Your task to perform on an android device: check google app version Image 0: 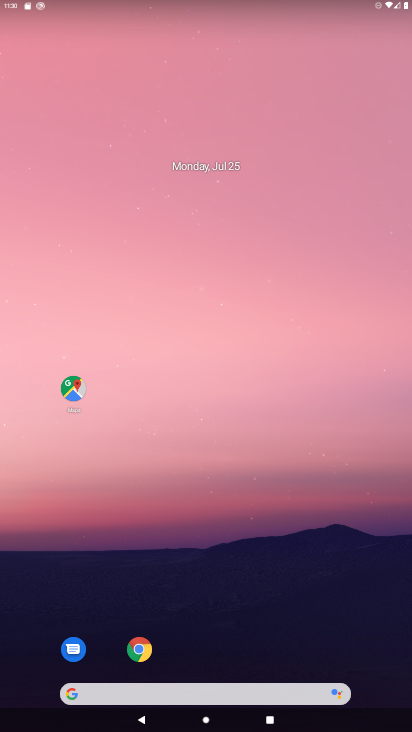
Step 0: click (139, 651)
Your task to perform on an android device: check google app version Image 1: 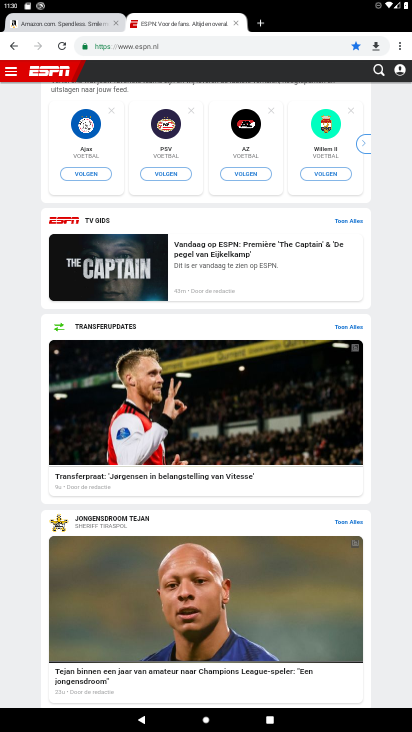
Step 1: click (397, 48)
Your task to perform on an android device: check google app version Image 2: 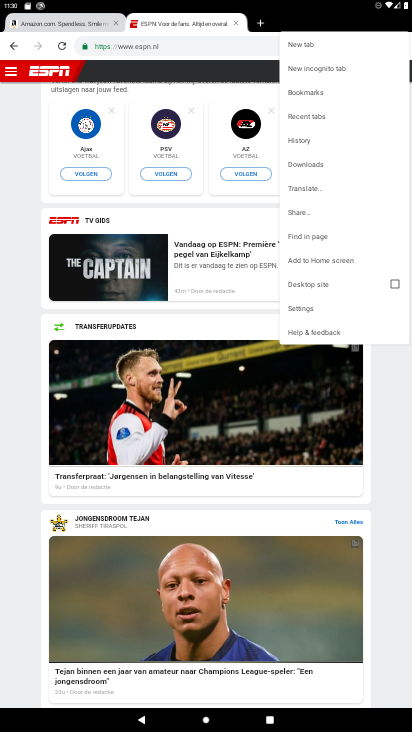
Step 2: click (296, 307)
Your task to perform on an android device: check google app version Image 3: 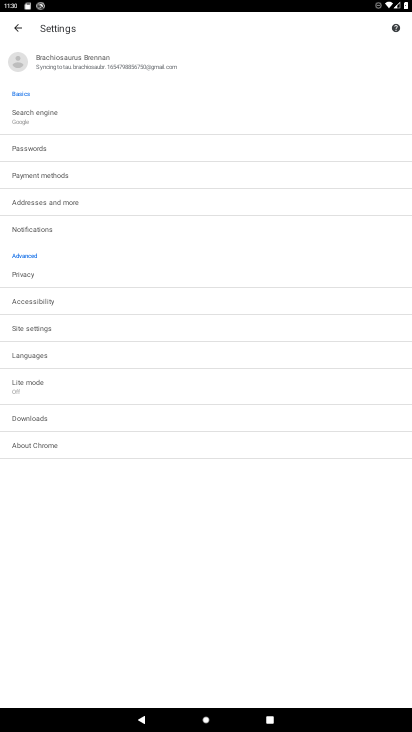
Step 3: click (30, 445)
Your task to perform on an android device: check google app version Image 4: 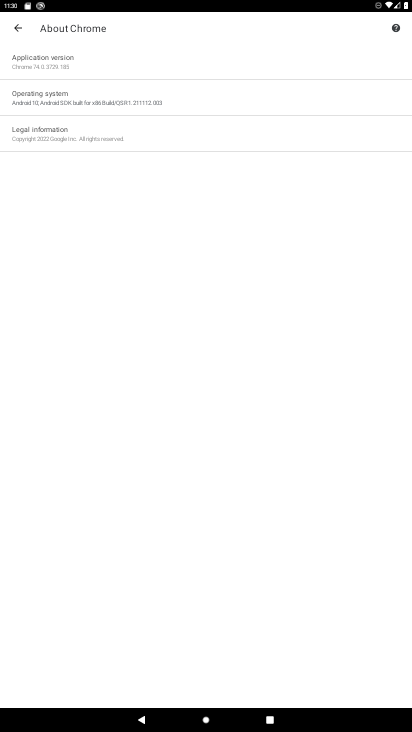
Step 4: click (45, 54)
Your task to perform on an android device: check google app version Image 5: 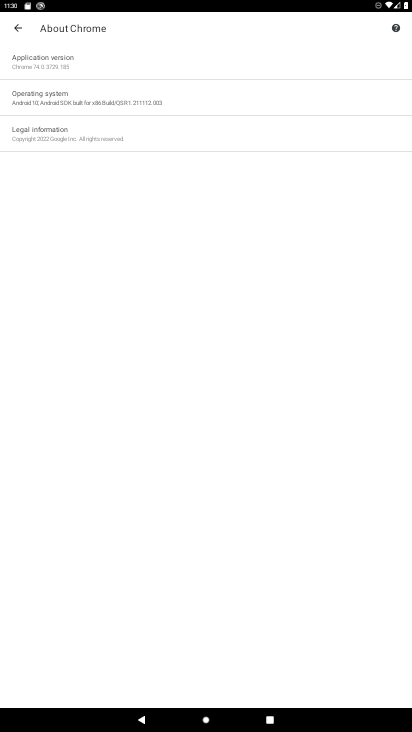
Step 5: task complete